Your task to perform on an android device: set an alarm Image 0: 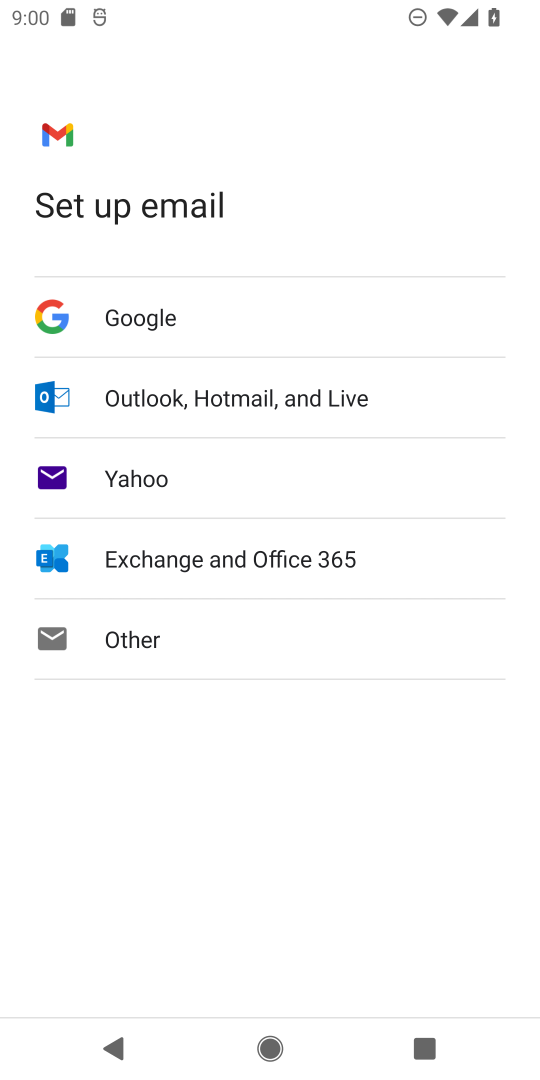
Step 0: press home button
Your task to perform on an android device: set an alarm Image 1: 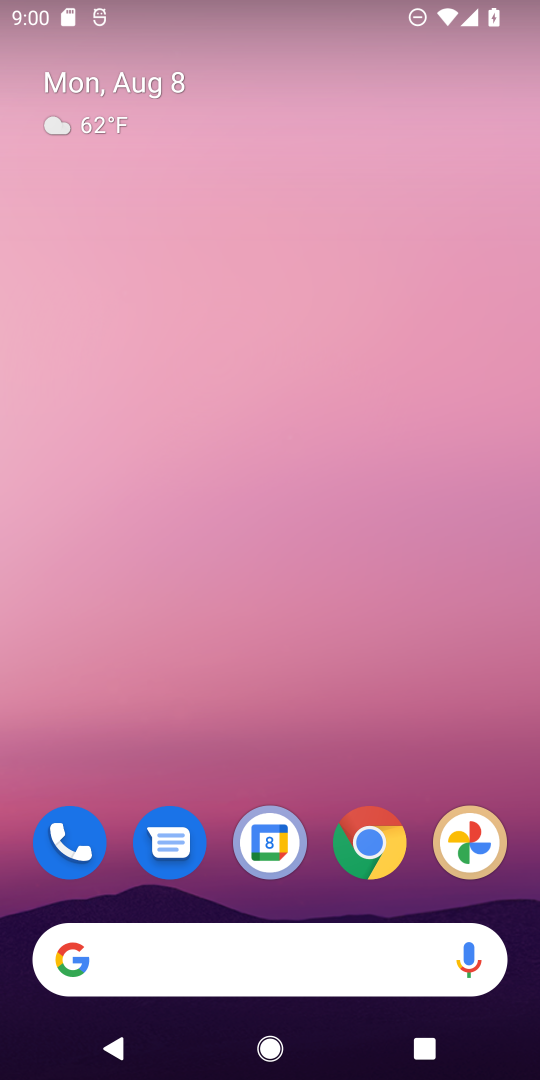
Step 1: drag from (285, 710) to (381, 2)
Your task to perform on an android device: set an alarm Image 2: 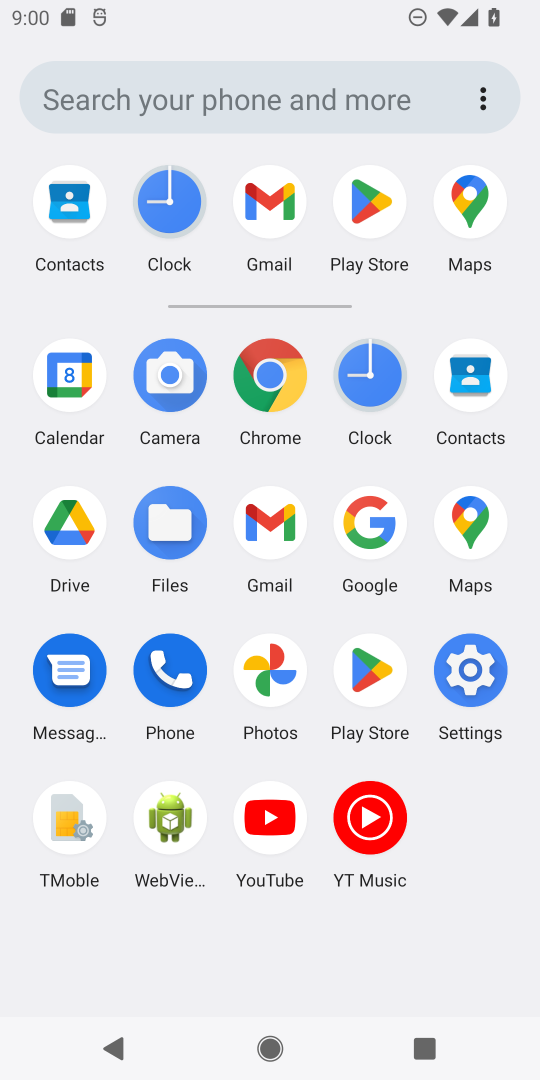
Step 2: click (173, 203)
Your task to perform on an android device: set an alarm Image 3: 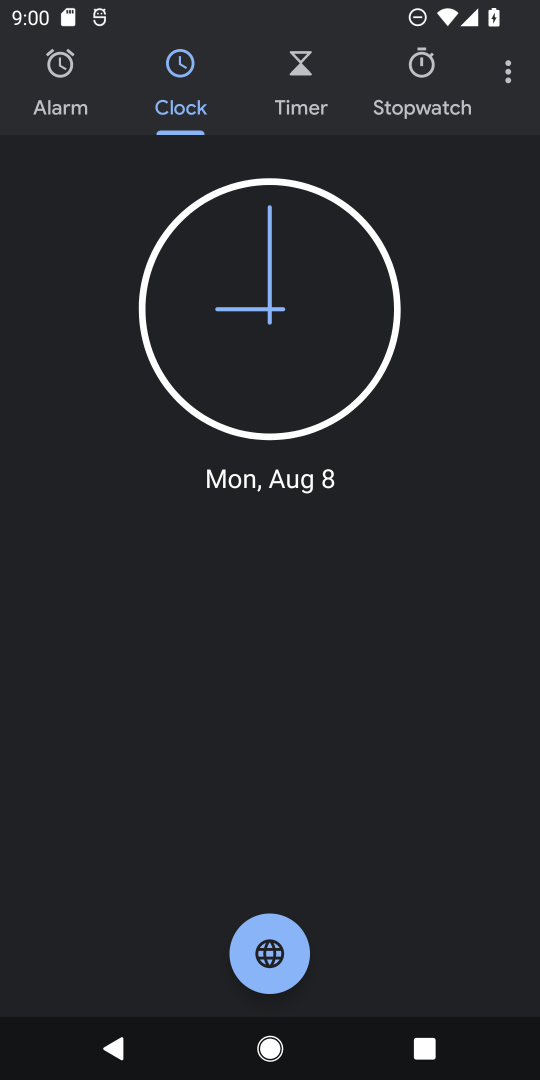
Step 3: click (56, 72)
Your task to perform on an android device: set an alarm Image 4: 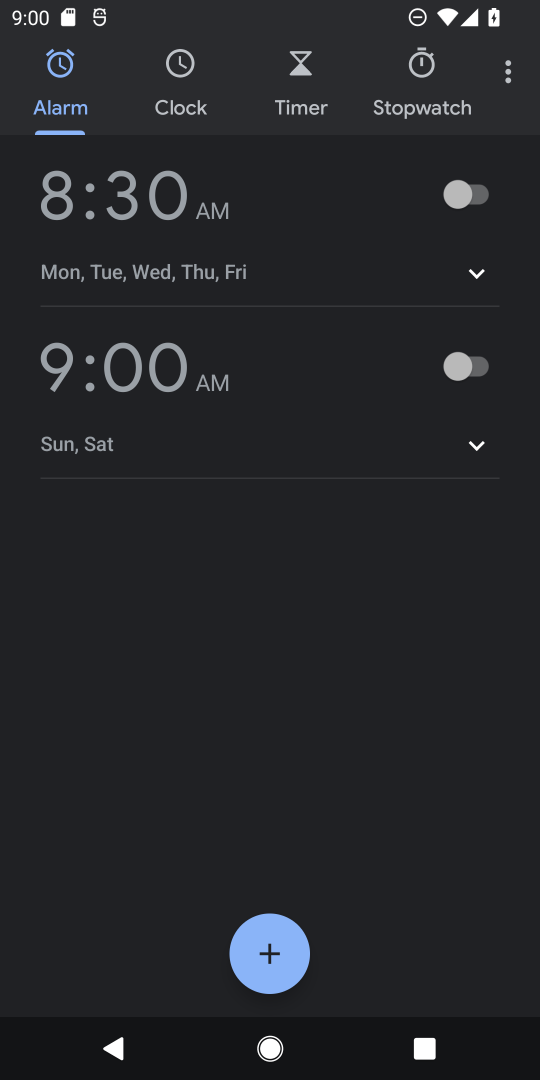
Step 4: click (271, 942)
Your task to perform on an android device: set an alarm Image 5: 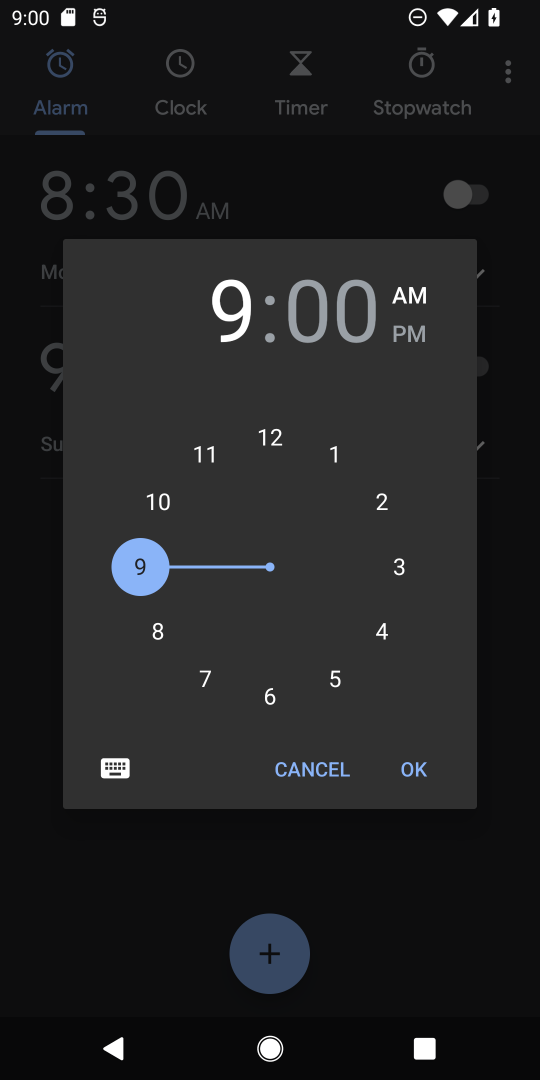
Step 5: click (406, 763)
Your task to perform on an android device: set an alarm Image 6: 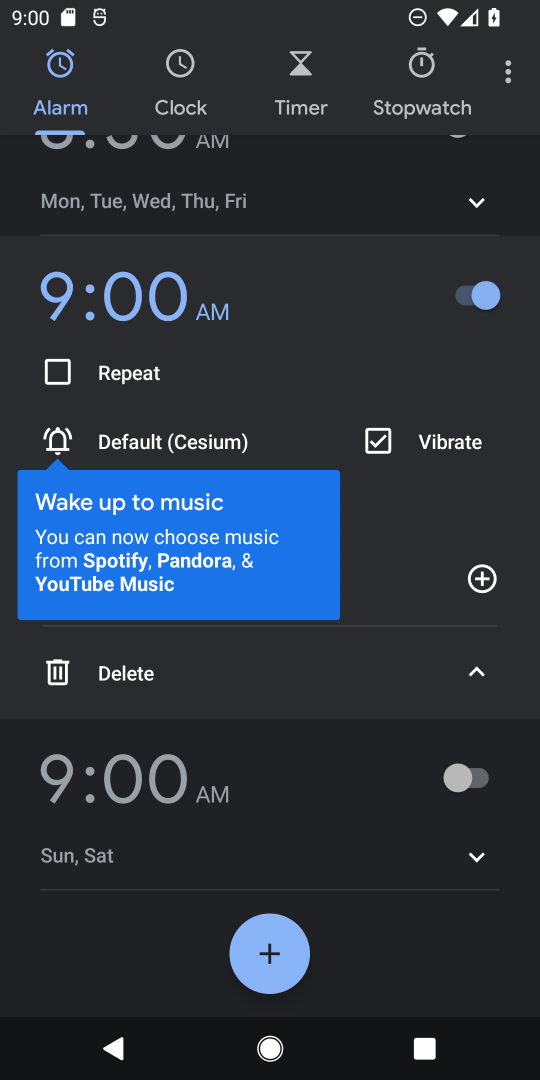
Step 6: task complete